Your task to perform on an android device: Open Reddit.com Image 0: 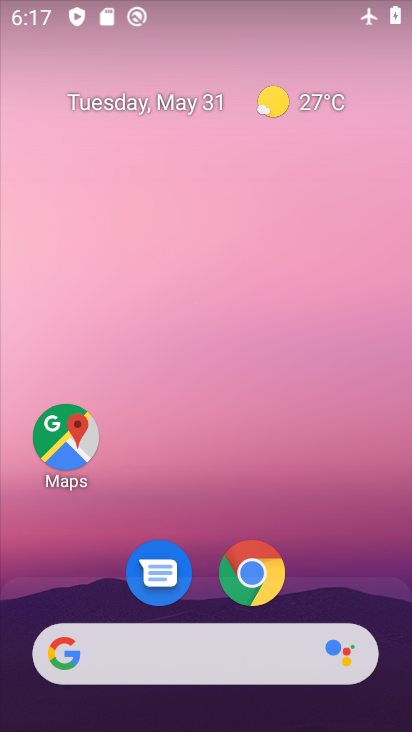
Step 0: drag from (394, 644) to (320, 14)
Your task to perform on an android device: Open Reddit.com Image 1: 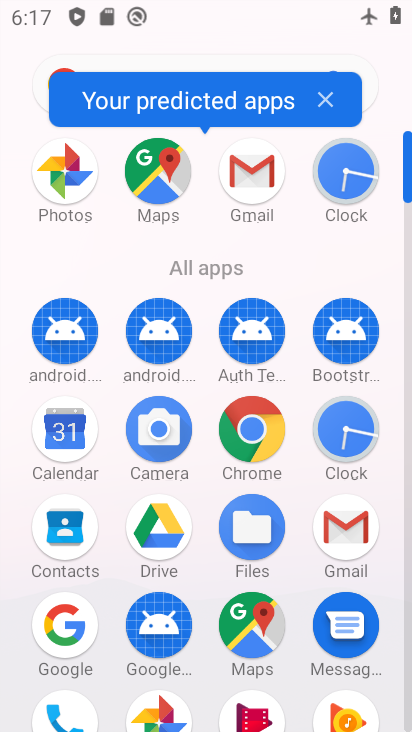
Step 1: click (77, 626)
Your task to perform on an android device: Open Reddit.com Image 2: 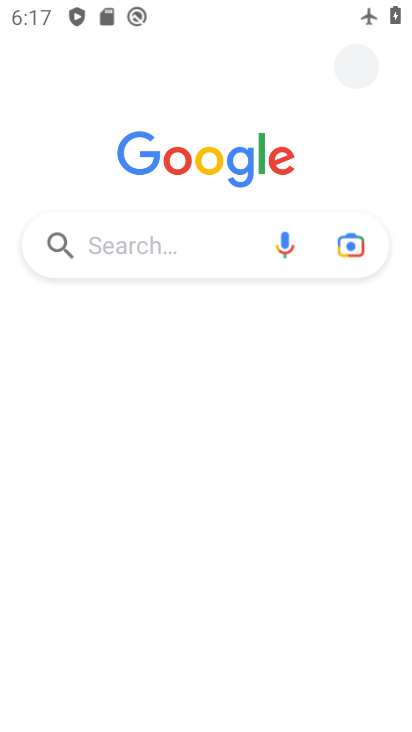
Step 2: click (143, 257)
Your task to perform on an android device: Open Reddit.com Image 3: 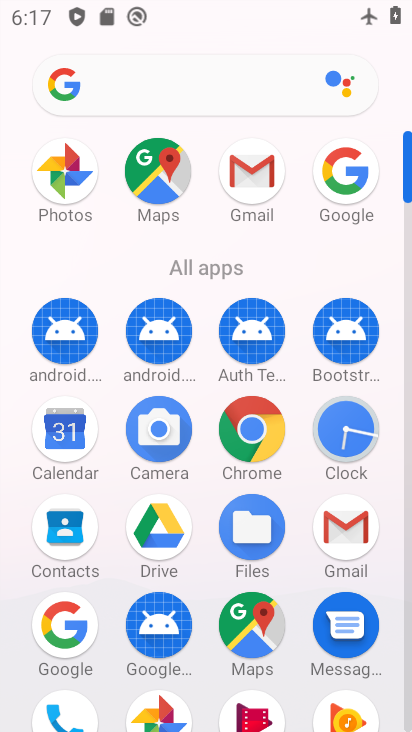
Step 3: type "redd"
Your task to perform on an android device: Open Reddit.com Image 4: 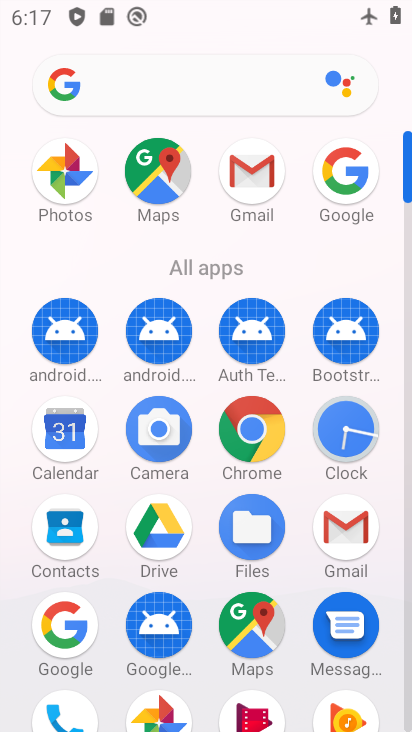
Step 4: click (57, 607)
Your task to perform on an android device: Open Reddit.com Image 5: 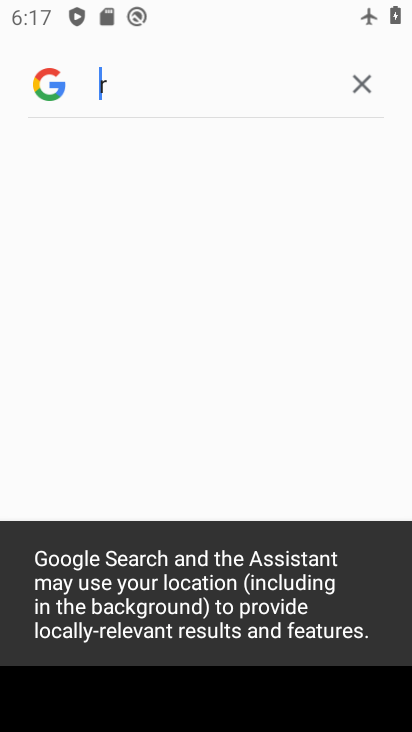
Step 5: click (373, 81)
Your task to perform on an android device: Open Reddit.com Image 6: 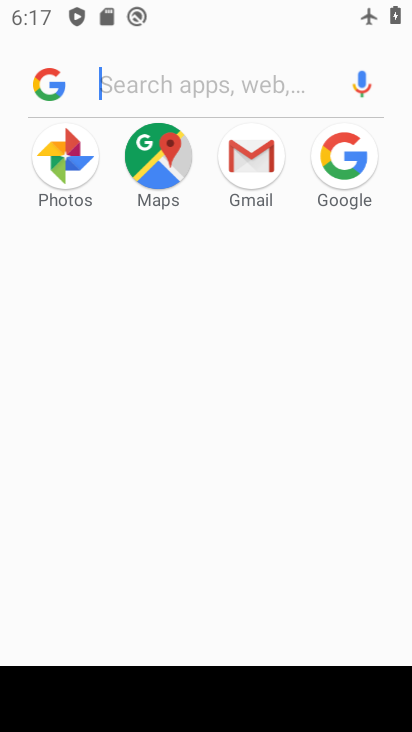
Step 6: click (221, 81)
Your task to perform on an android device: Open Reddit.com Image 7: 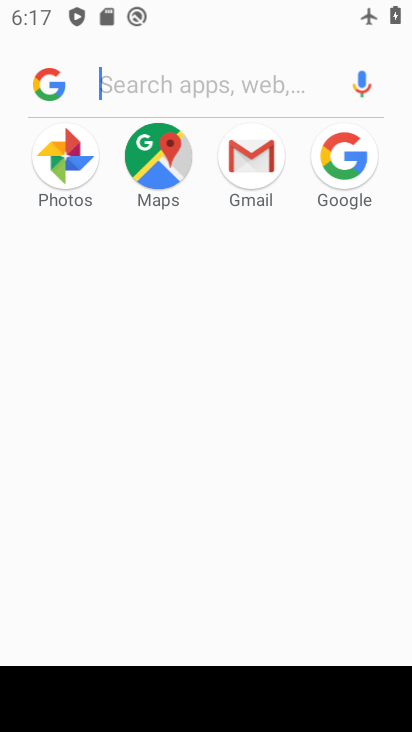
Step 7: type "reddit.com"
Your task to perform on an android device: Open Reddit.com Image 8: 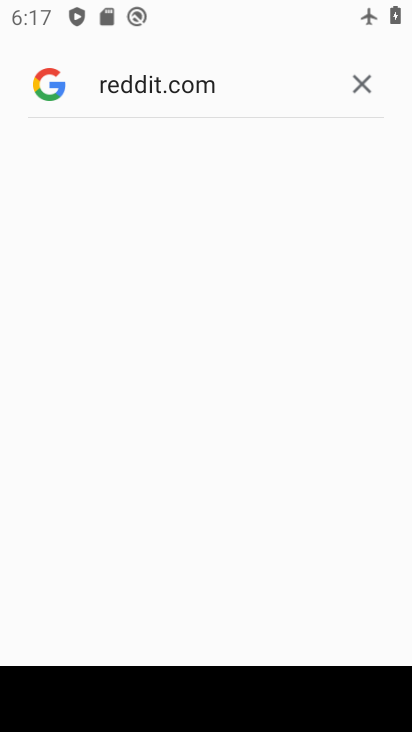
Step 8: task complete